Your task to perform on an android device: clear history in the chrome app Image 0: 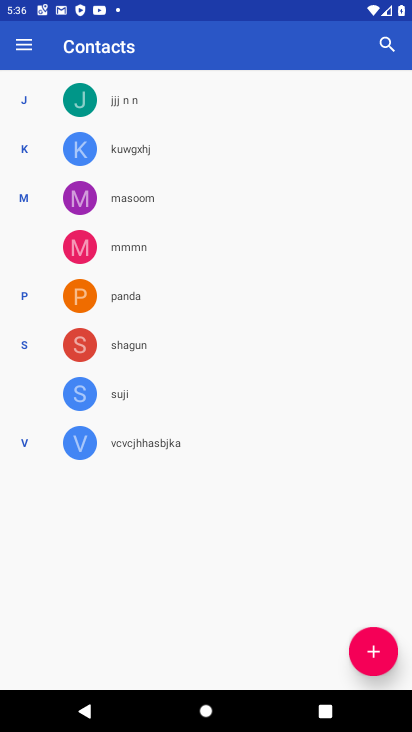
Step 0: press home button
Your task to perform on an android device: clear history in the chrome app Image 1: 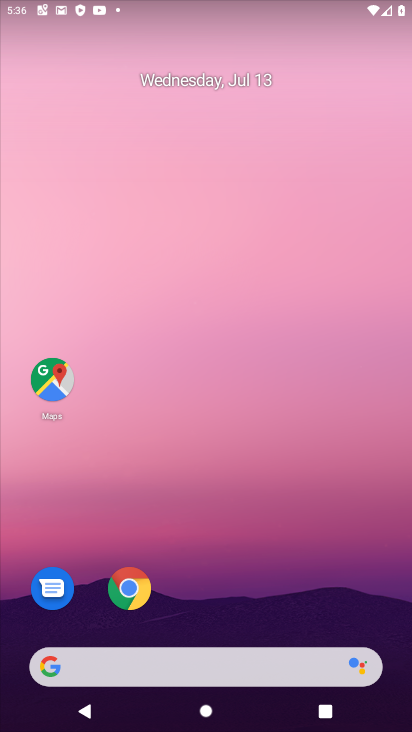
Step 1: press home button
Your task to perform on an android device: clear history in the chrome app Image 2: 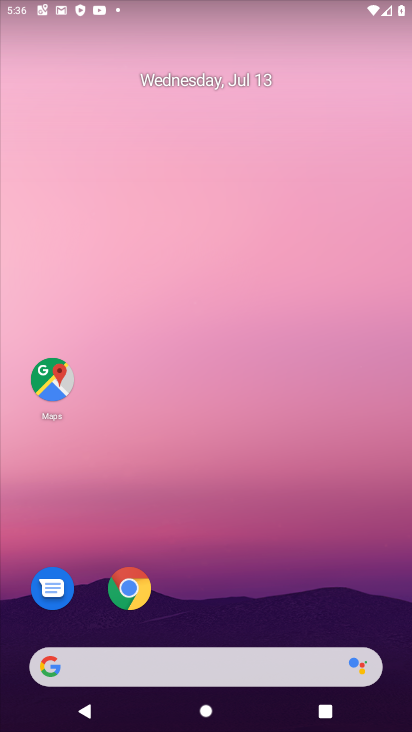
Step 2: click (128, 589)
Your task to perform on an android device: clear history in the chrome app Image 3: 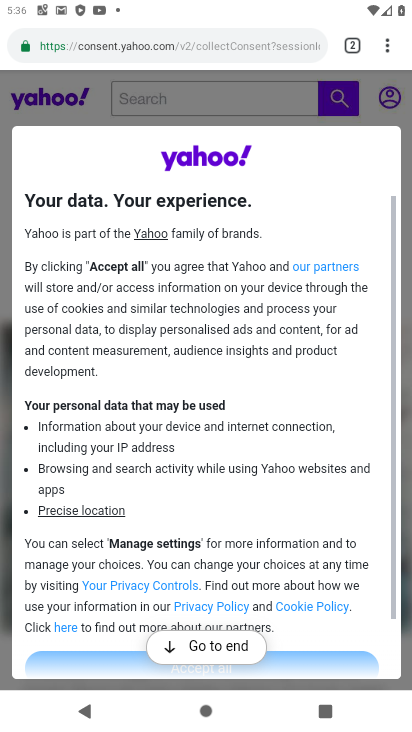
Step 3: click (384, 49)
Your task to perform on an android device: clear history in the chrome app Image 4: 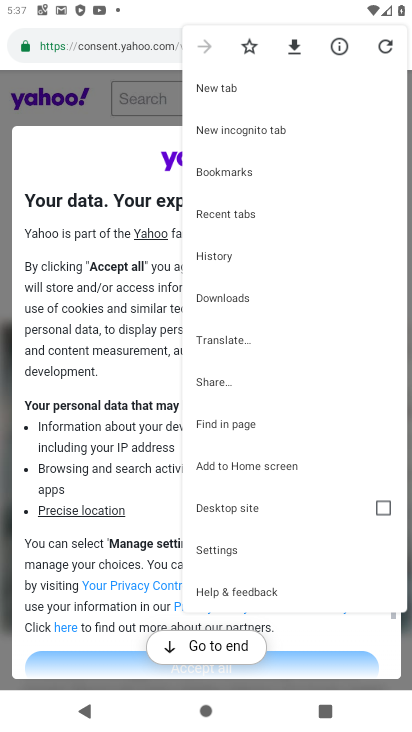
Step 4: click (222, 255)
Your task to perform on an android device: clear history in the chrome app Image 5: 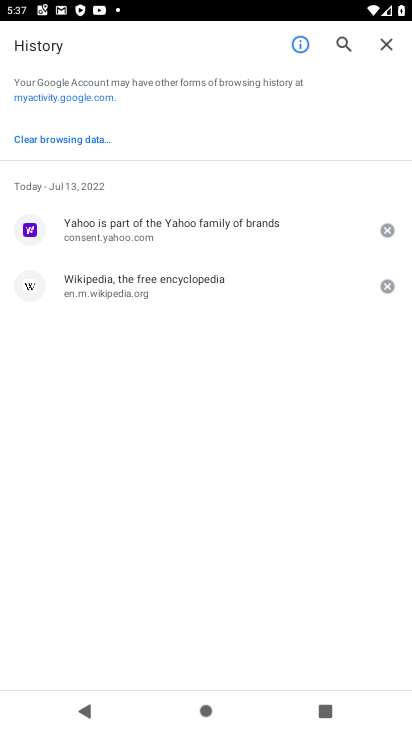
Step 5: click (54, 138)
Your task to perform on an android device: clear history in the chrome app Image 6: 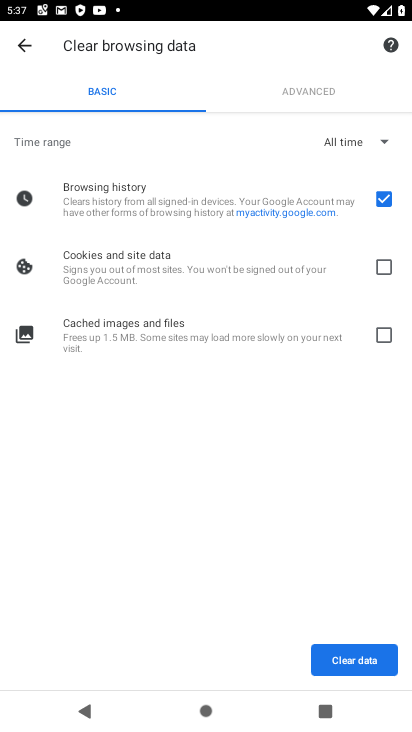
Step 6: click (385, 266)
Your task to perform on an android device: clear history in the chrome app Image 7: 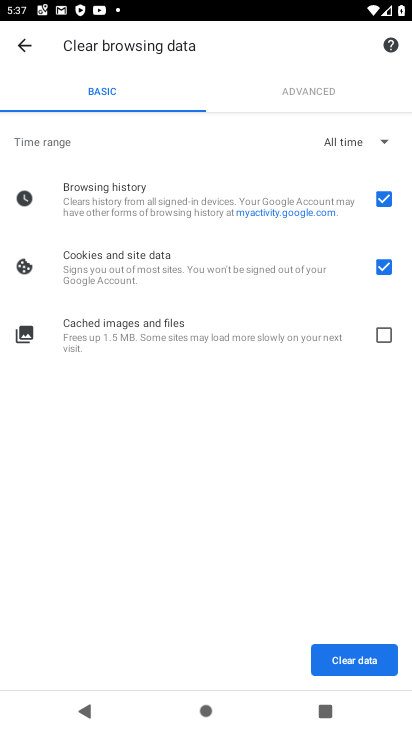
Step 7: click (385, 341)
Your task to perform on an android device: clear history in the chrome app Image 8: 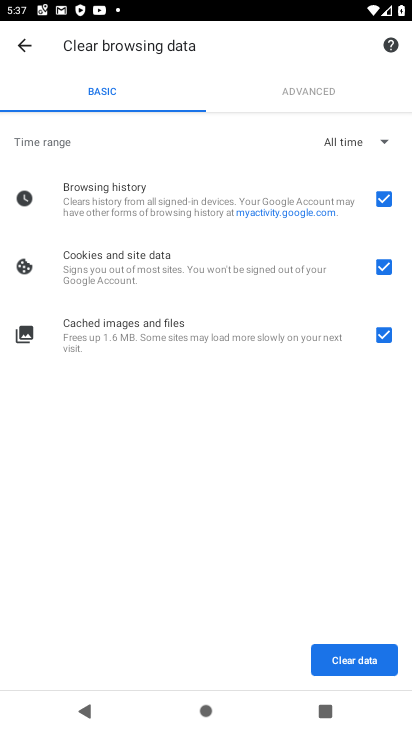
Step 8: click (326, 659)
Your task to perform on an android device: clear history in the chrome app Image 9: 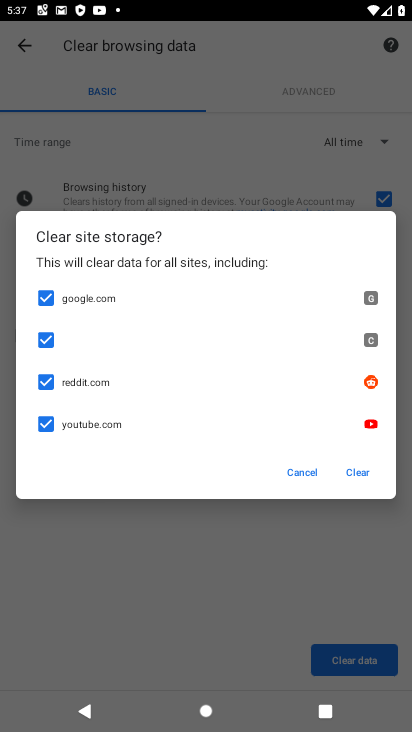
Step 9: click (352, 472)
Your task to perform on an android device: clear history in the chrome app Image 10: 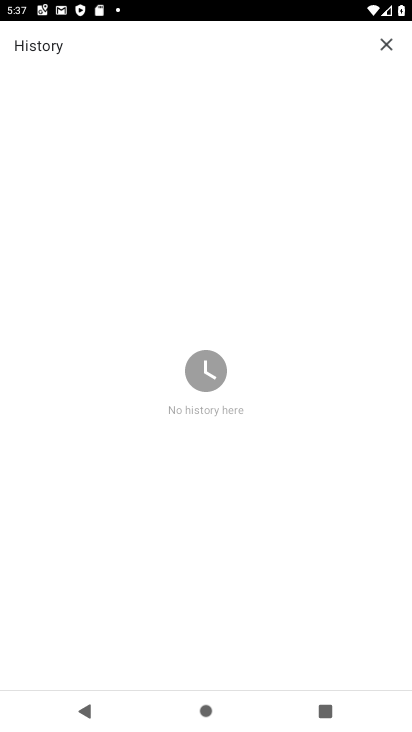
Step 10: task complete